Your task to perform on an android device: toggle notification dots Image 0: 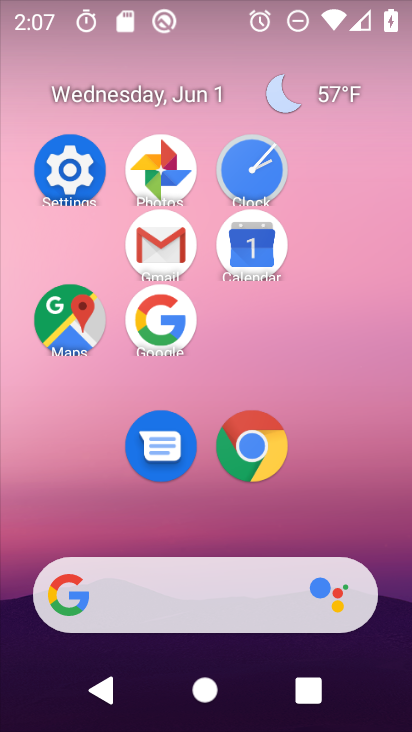
Step 0: click (78, 166)
Your task to perform on an android device: toggle notification dots Image 1: 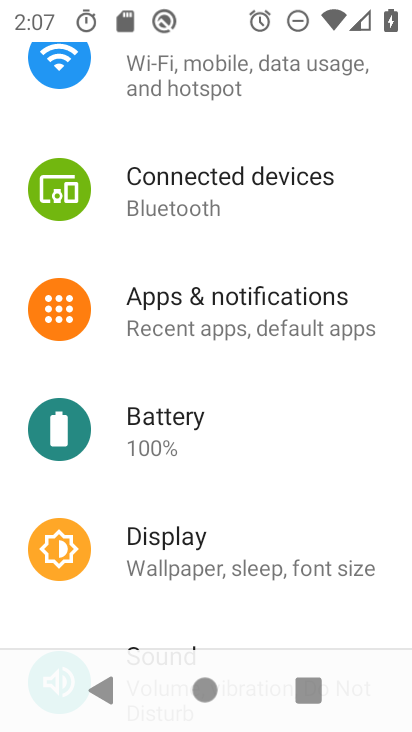
Step 1: click (280, 303)
Your task to perform on an android device: toggle notification dots Image 2: 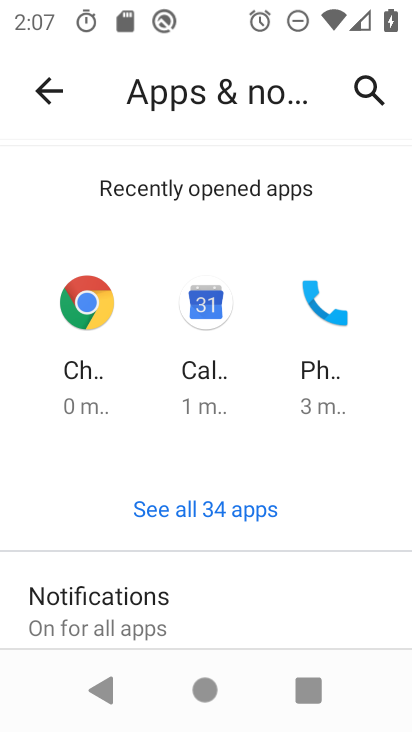
Step 2: drag from (315, 568) to (242, 198)
Your task to perform on an android device: toggle notification dots Image 3: 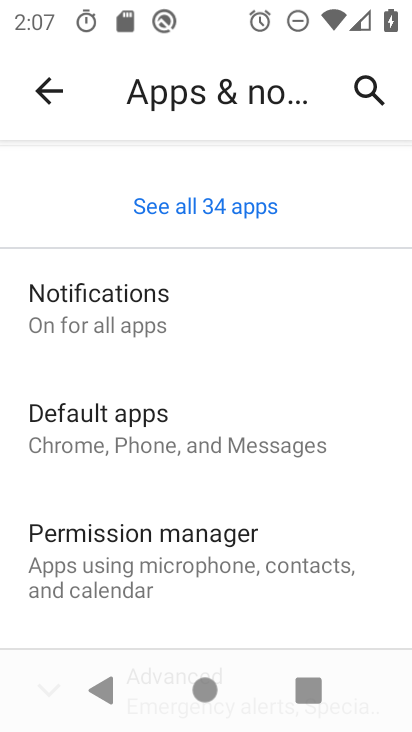
Step 3: click (170, 308)
Your task to perform on an android device: toggle notification dots Image 4: 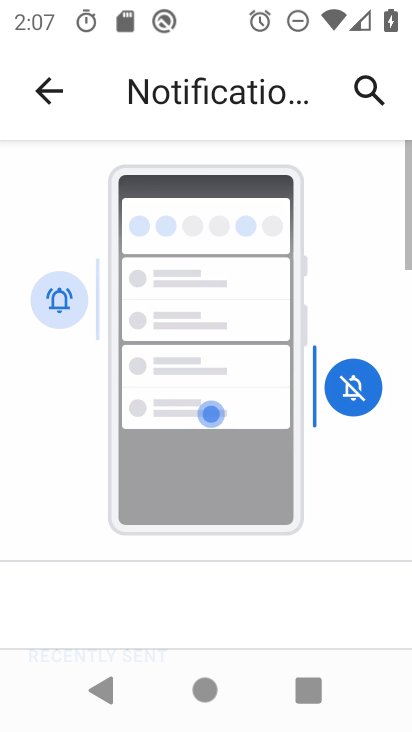
Step 4: drag from (258, 582) to (278, 163)
Your task to perform on an android device: toggle notification dots Image 5: 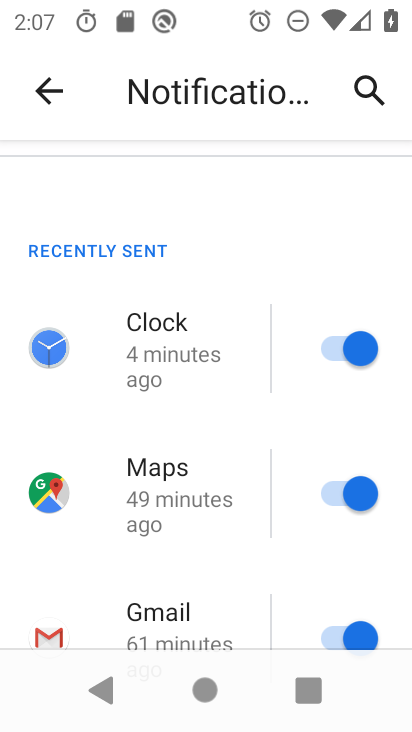
Step 5: drag from (285, 566) to (254, 139)
Your task to perform on an android device: toggle notification dots Image 6: 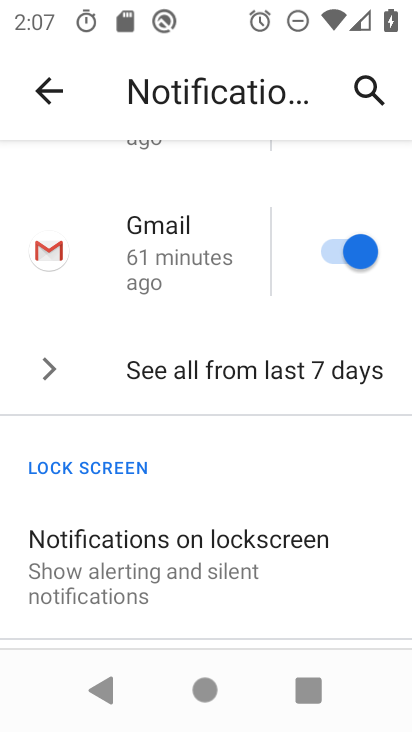
Step 6: drag from (236, 567) to (253, 173)
Your task to perform on an android device: toggle notification dots Image 7: 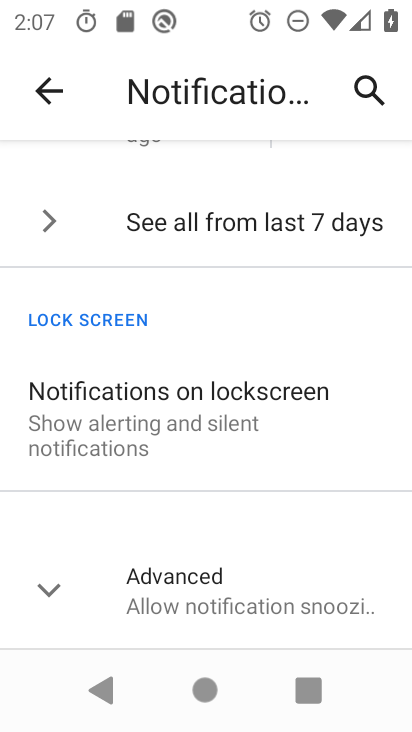
Step 7: click (234, 587)
Your task to perform on an android device: toggle notification dots Image 8: 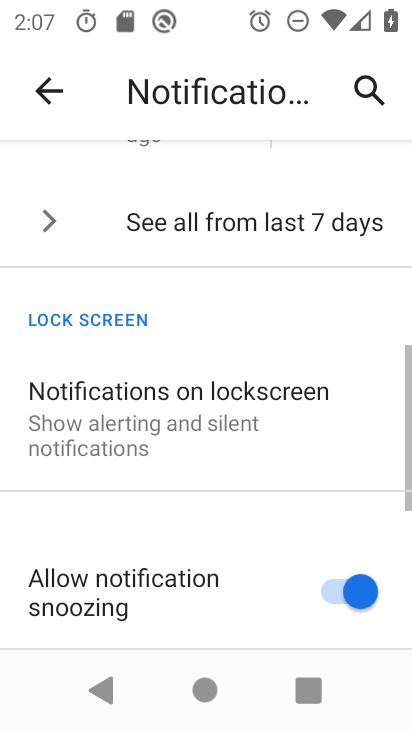
Step 8: drag from (234, 588) to (188, 162)
Your task to perform on an android device: toggle notification dots Image 9: 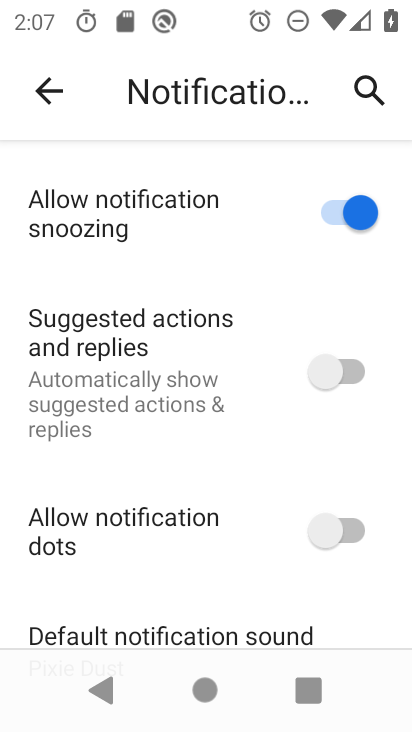
Step 9: drag from (245, 557) to (288, 260)
Your task to perform on an android device: toggle notification dots Image 10: 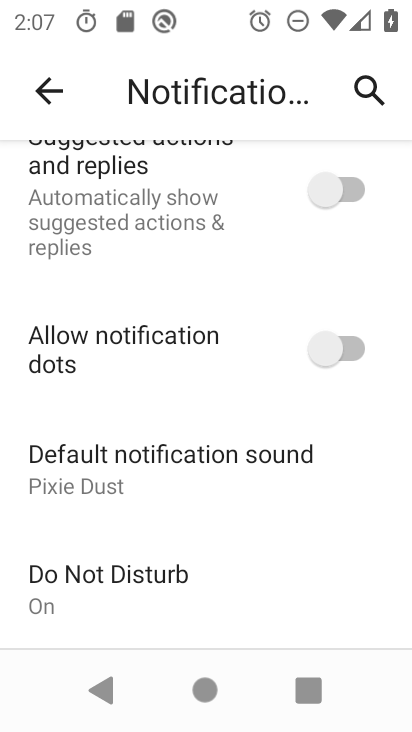
Step 10: drag from (293, 523) to (282, 234)
Your task to perform on an android device: toggle notification dots Image 11: 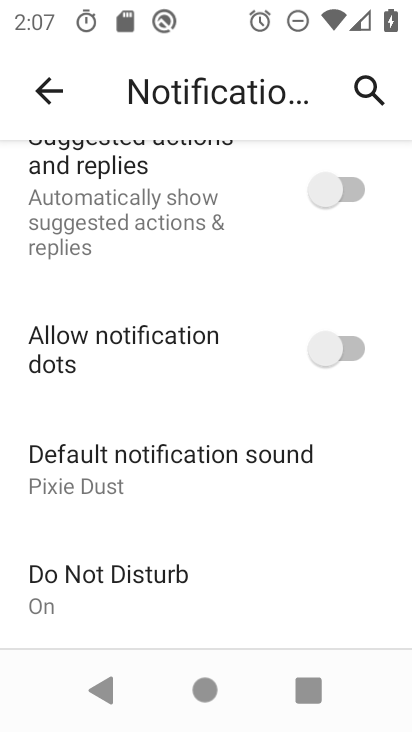
Step 11: click (320, 357)
Your task to perform on an android device: toggle notification dots Image 12: 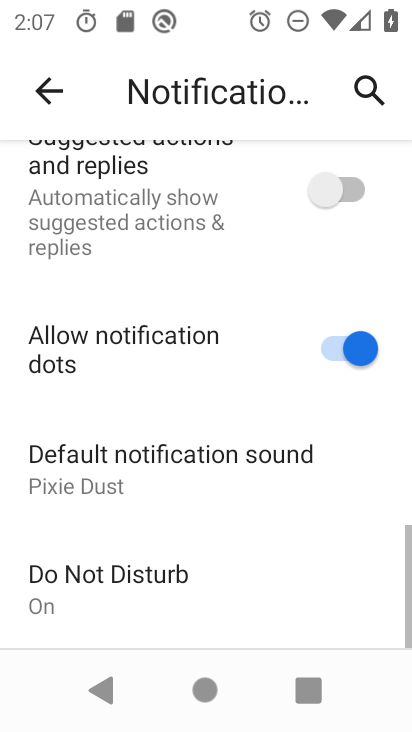
Step 12: task complete